Your task to perform on an android device: turn on the 12-hour format for clock Image 0: 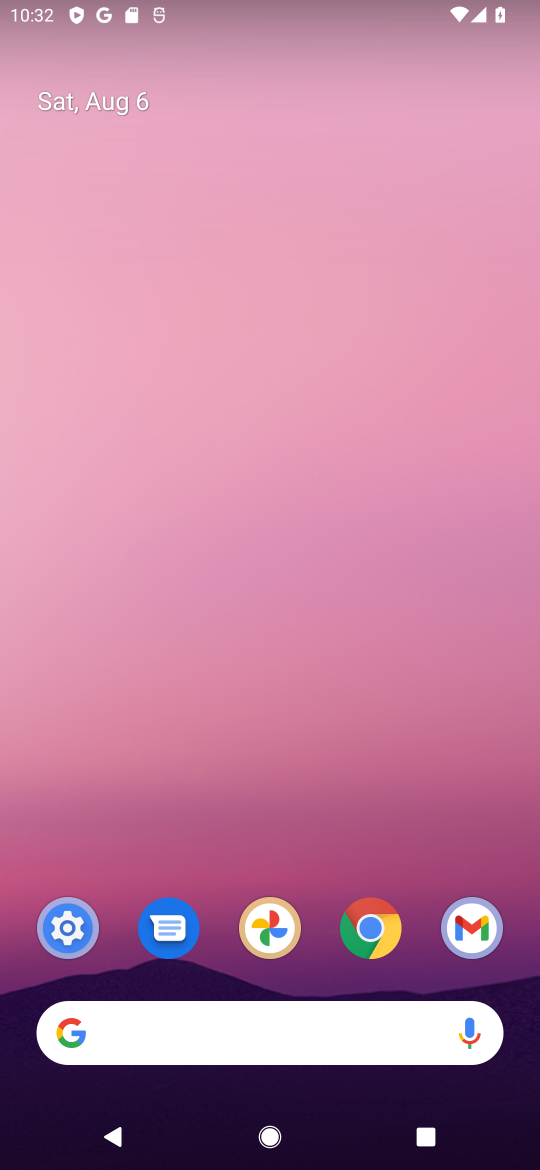
Step 0: click (54, 920)
Your task to perform on an android device: turn on the 12-hour format for clock Image 1: 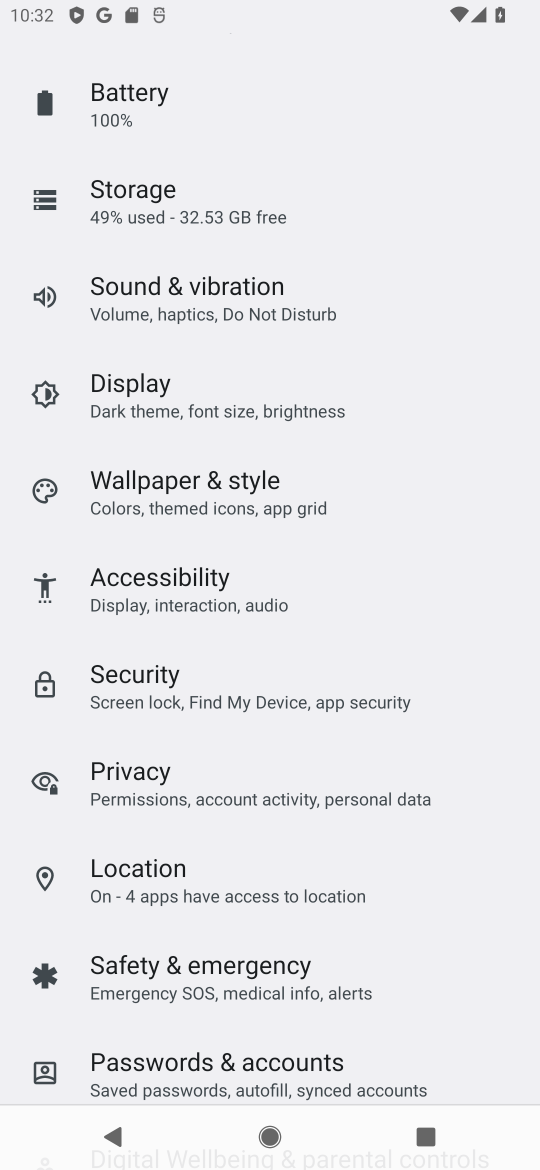
Step 1: drag from (419, 899) to (235, 353)
Your task to perform on an android device: turn on the 12-hour format for clock Image 2: 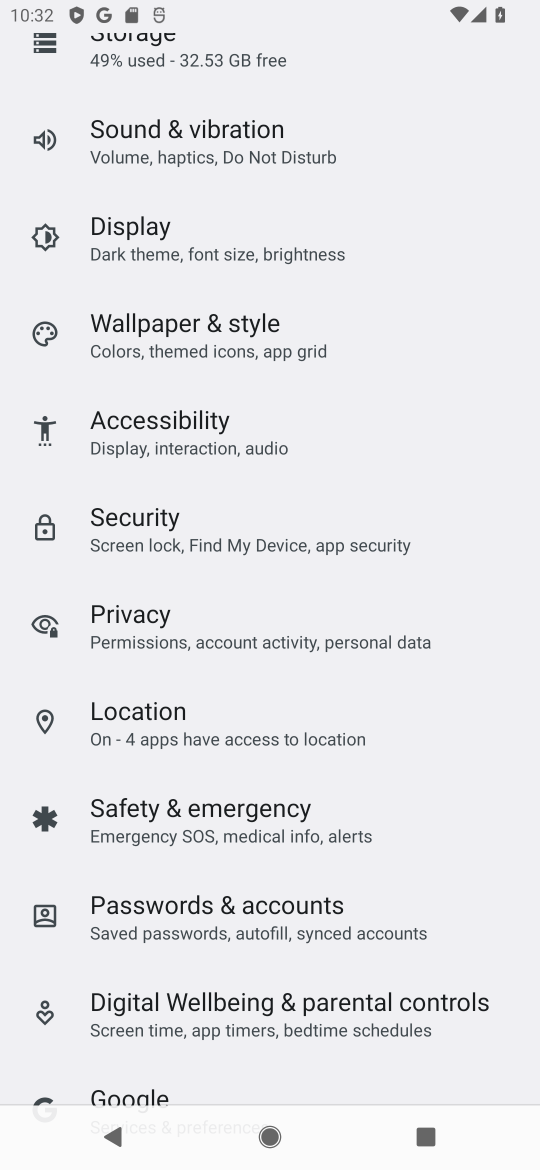
Step 2: press home button
Your task to perform on an android device: turn on the 12-hour format for clock Image 3: 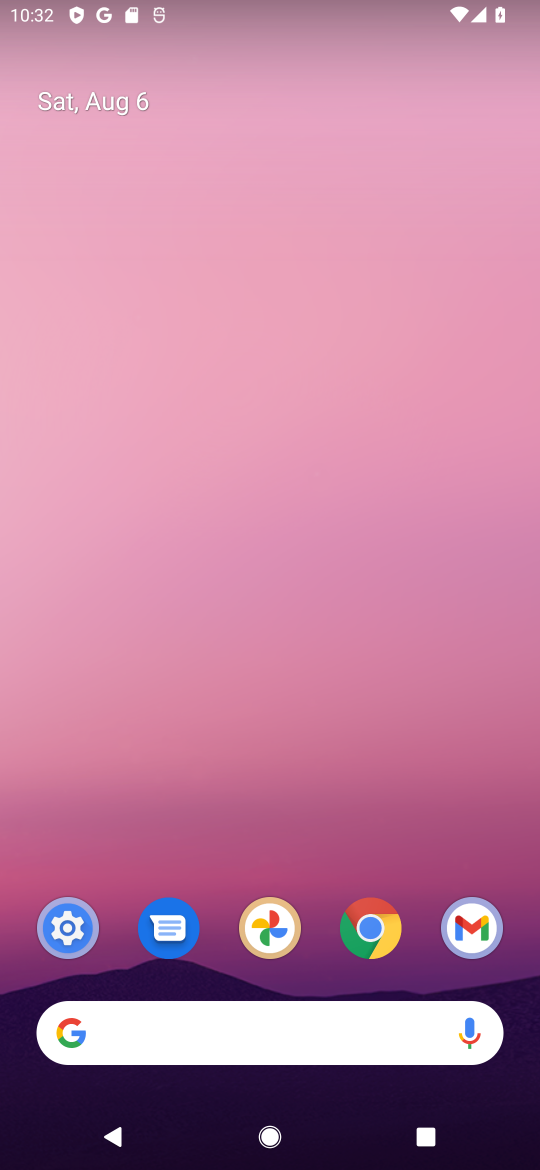
Step 3: drag from (197, 796) to (141, 127)
Your task to perform on an android device: turn on the 12-hour format for clock Image 4: 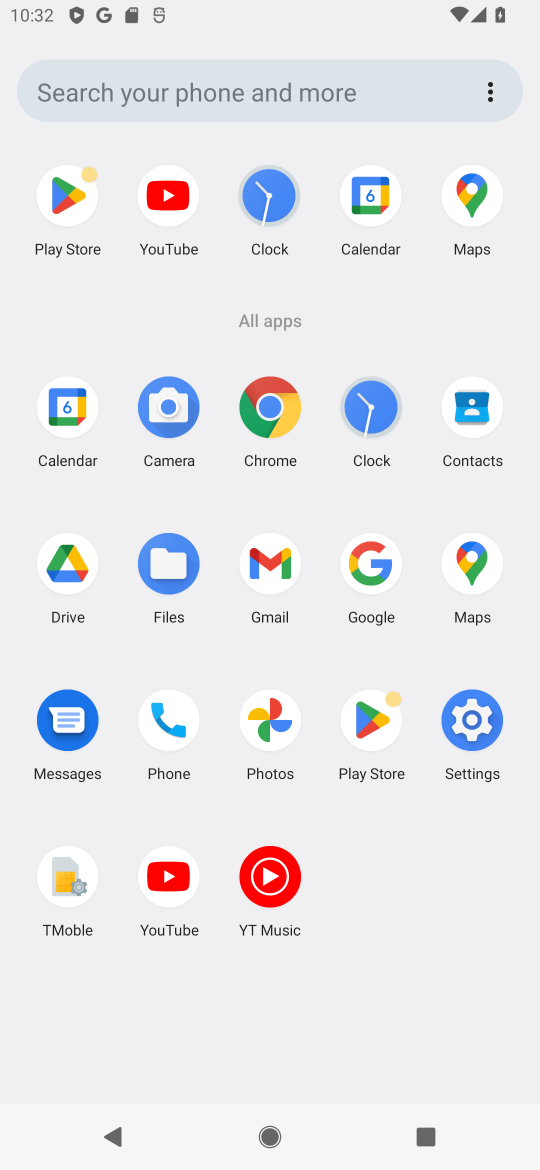
Step 4: click (379, 432)
Your task to perform on an android device: turn on the 12-hour format for clock Image 5: 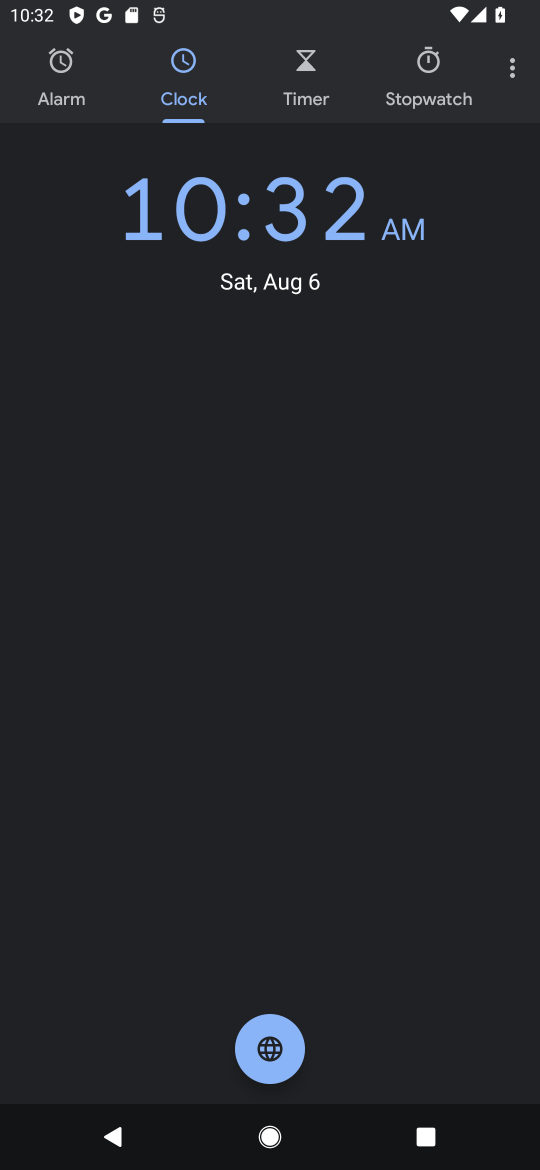
Step 5: click (508, 69)
Your task to perform on an android device: turn on the 12-hour format for clock Image 6: 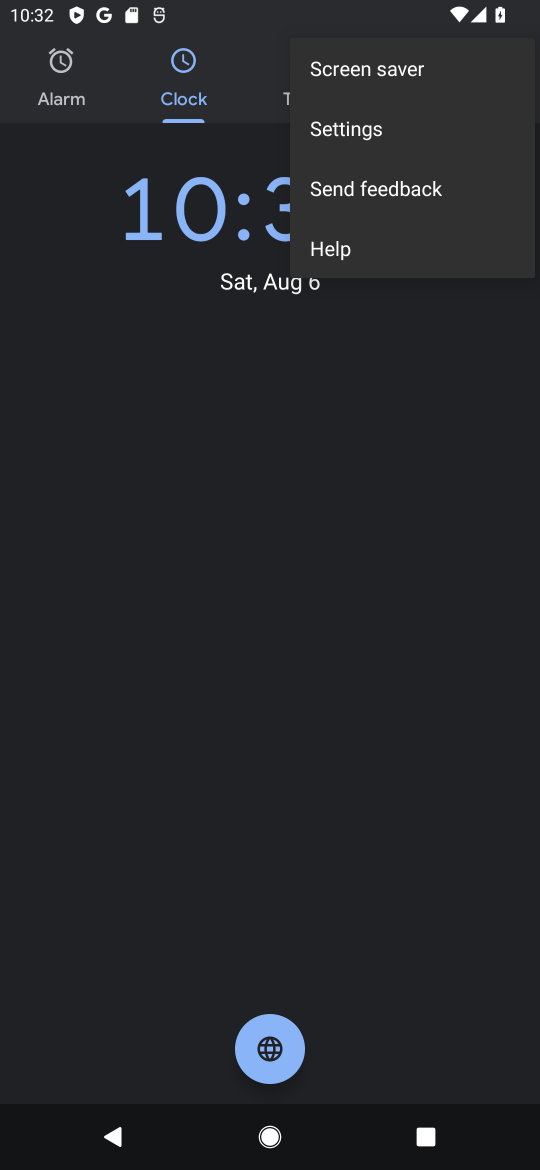
Step 6: click (381, 134)
Your task to perform on an android device: turn on the 12-hour format for clock Image 7: 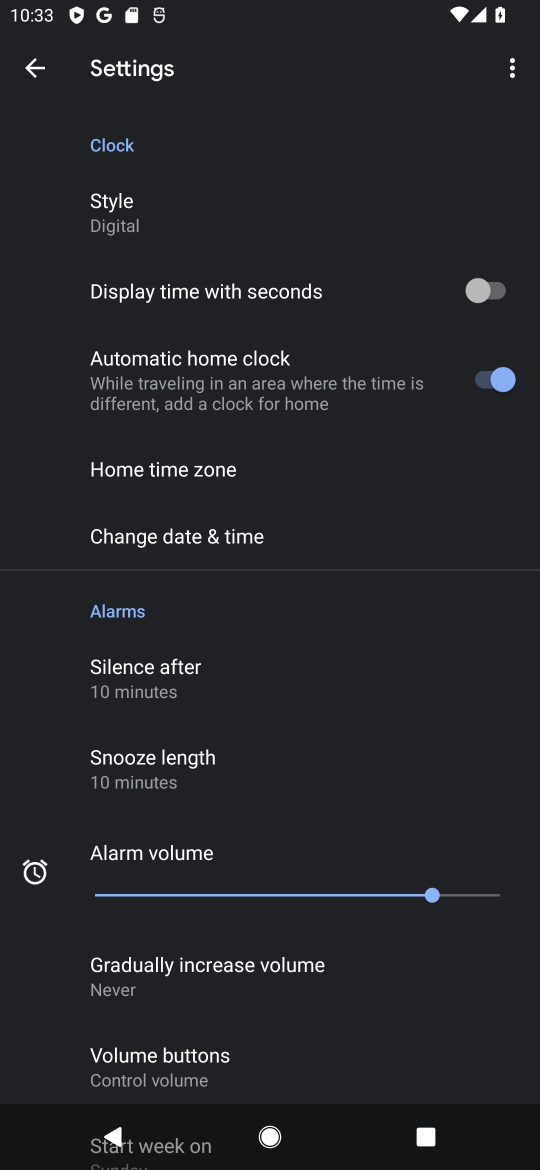
Step 7: click (134, 551)
Your task to perform on an android device: turn on the 12-hour format for clock Image 8: 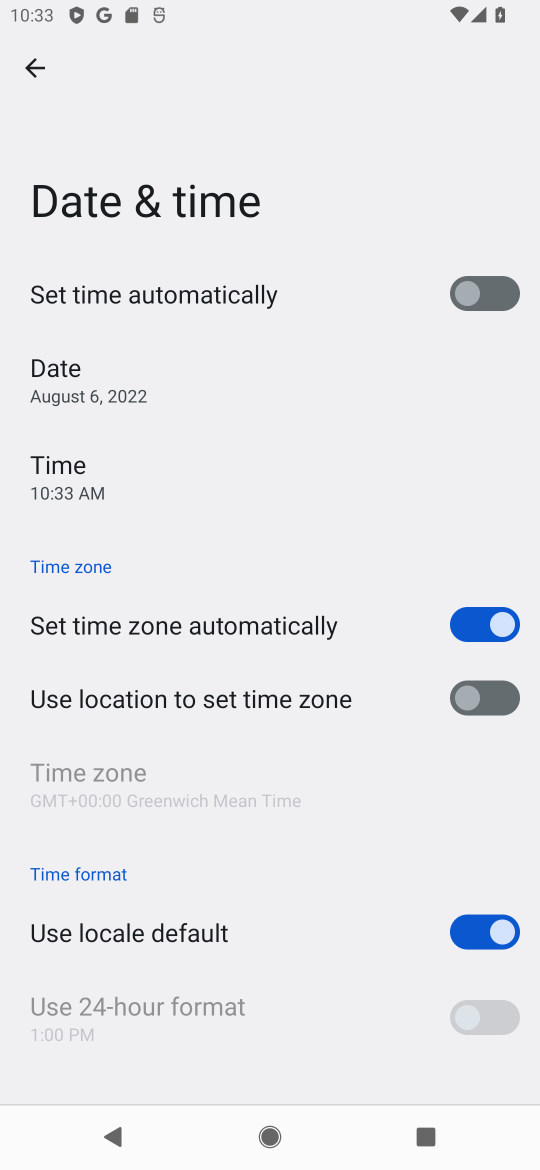
Step 8: task complete